Your task to perform on an android device: change the clock style Image 0: 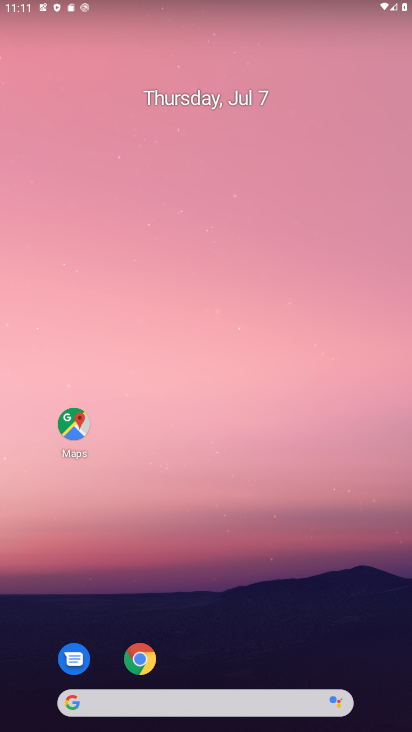
Step 0: drag from (258, 654) to (273, 8)
Your task to perform on an android device: change the clock style Image 1: 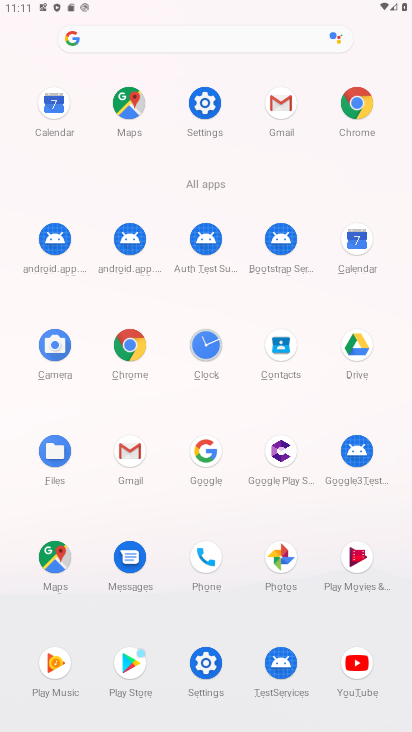
Step 1: click (202, 341)
Your task to perform on an android device: change the clock style Image 2: 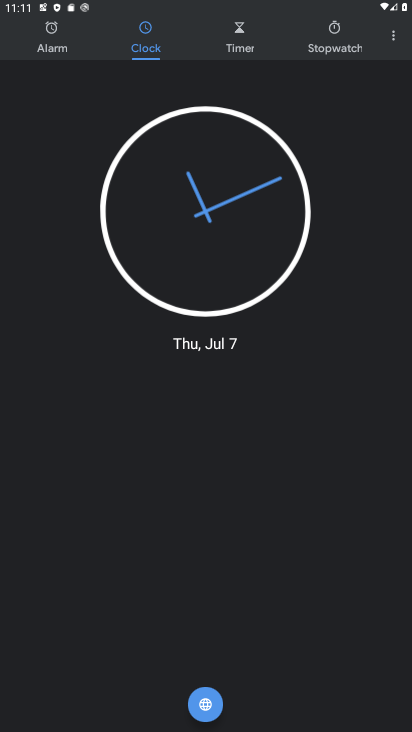
Step 2: click (390, 32)
Your task to perform on an android device: change the clock style Image 3: 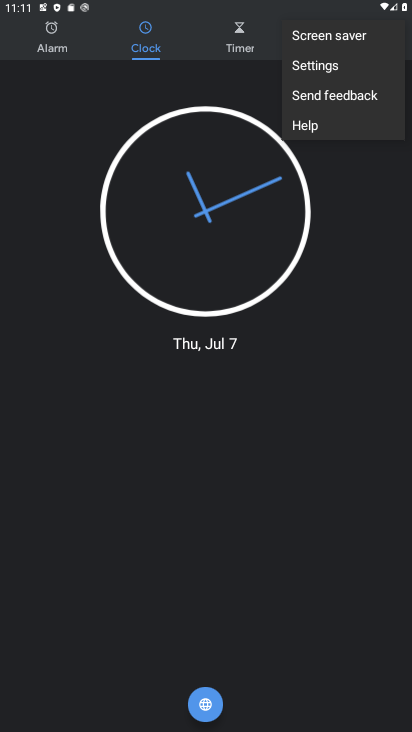
Step 3: click (330, 62)
Your task to perform on an android device: change the clock style Image 4: 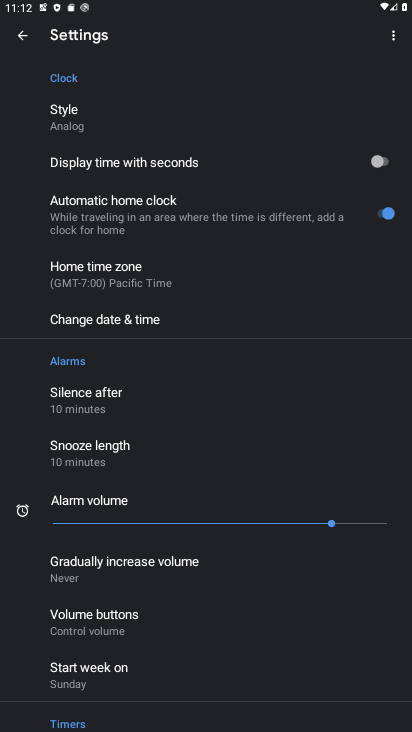
Step 4: click (95, 121)
Your task to perform on an android device: change the clock style Image 5: 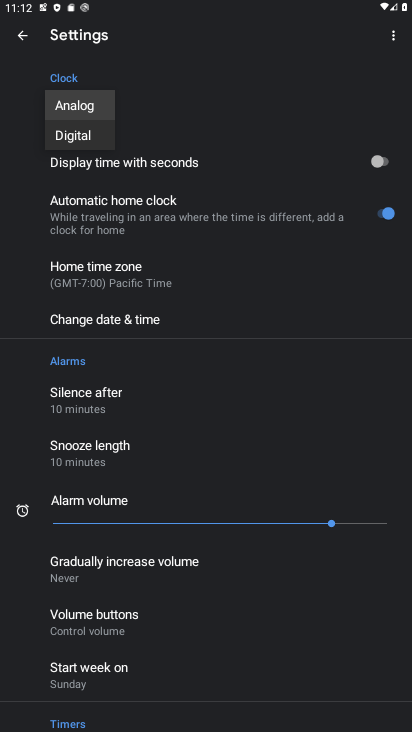
Step 5: click (89, 130)
Your task to perform on an android device: change the clock style Image 6: 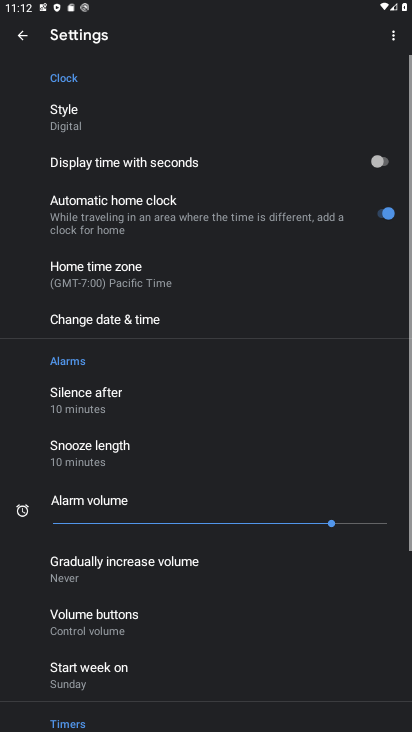
Step 6: task complete